Your task to perform on an android device: What is the recent news? Image 0: 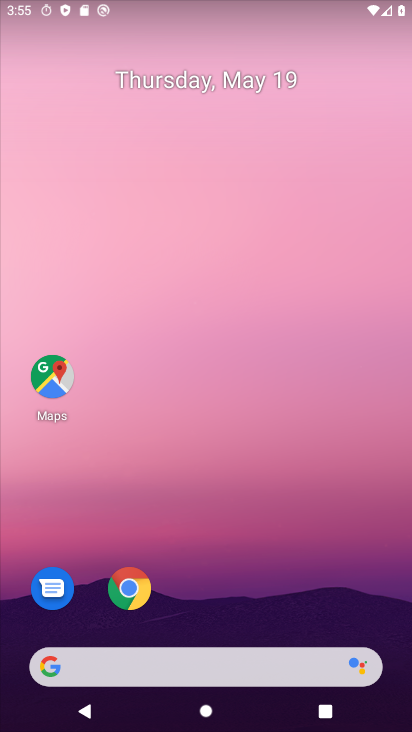
Step 0: click (207, 656)
Your task to perform on an android device: What is the recent news? Image 1: 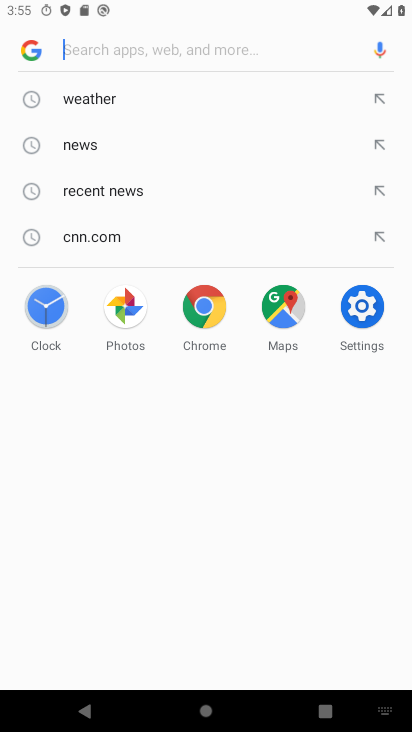
Step 1: type "recent "
Your task to perform on an android device: What is the recent news? Image 2: 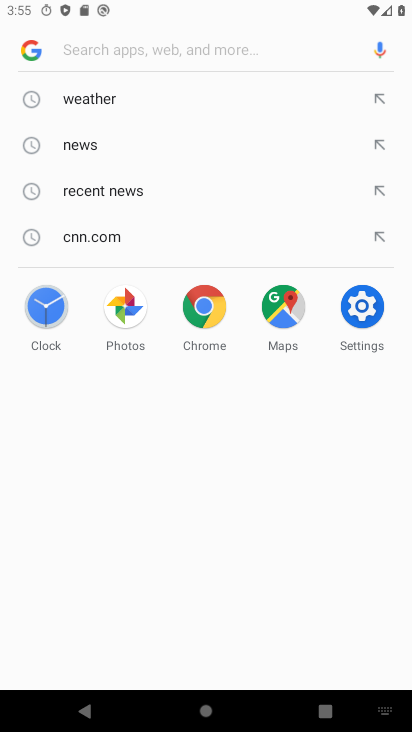
Step 2: click (144, 193)
Your task to perform on an android device: What is the recent news? Image 3: 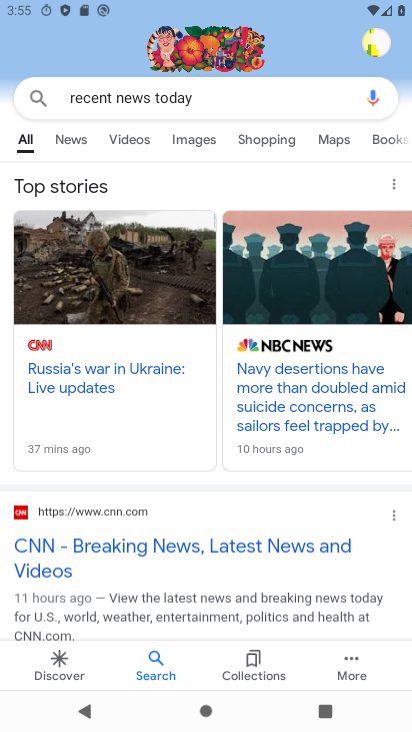
Step 3: task complete